Your task to perform on an android device: all mails in gmail Image 0: 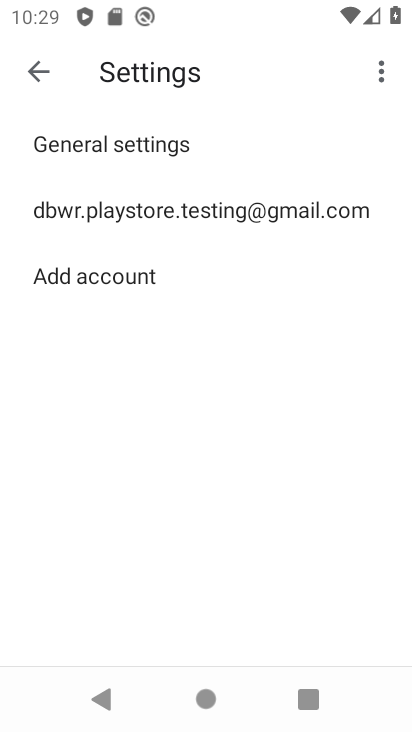
Step 0: click (38, 73)
Your task to perform on an android device: all mails in gmail Image 1: 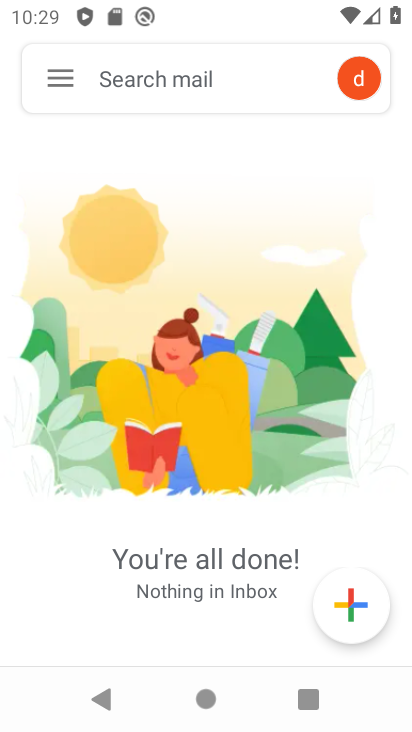
Step 1: click (52, 78)
Your task to perform on an android device: all mails in gmail Image 2: 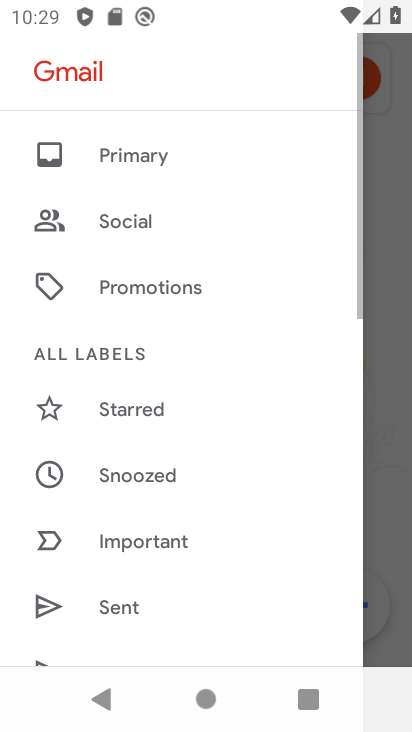
Step 2: drag from (159, 612) to (161, 245)
Your task to perform on an android device: all mails in gmail Image 3: 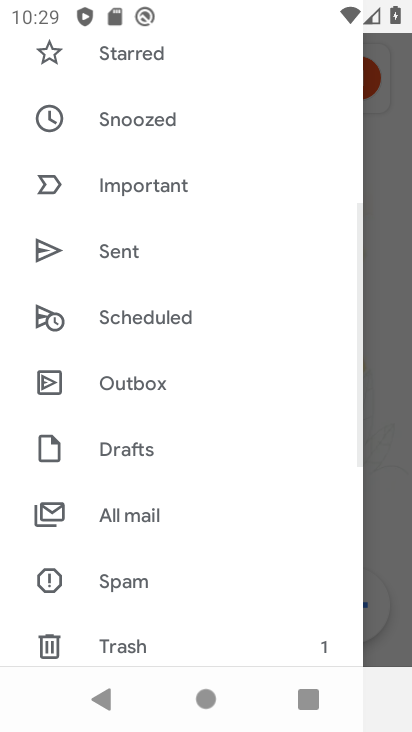
Step 3: click (133, 515)
Your task to perform on an android device: all mails in gmail Image 4: 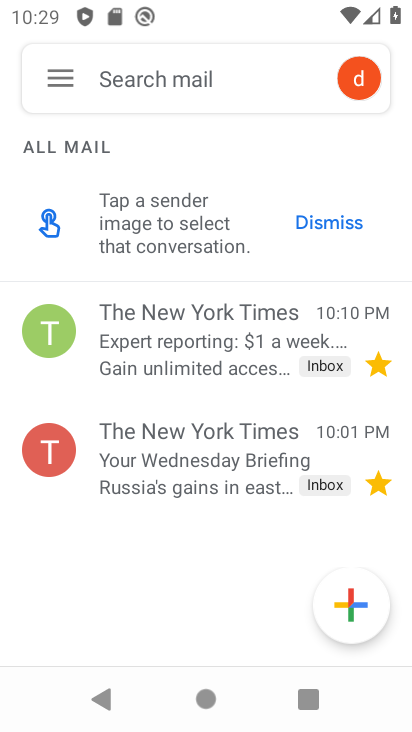
Step 4: task complete